Your task to perform on an android device: show emergency info Image 0: 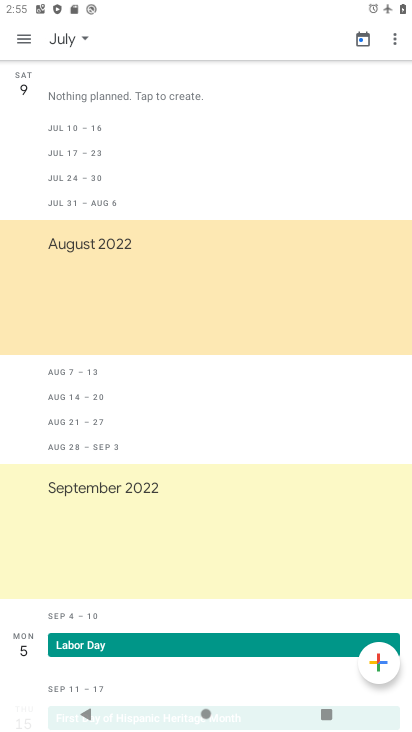
Step 0: press home button
Your task to perform on an android device: show emergency info Image 1: 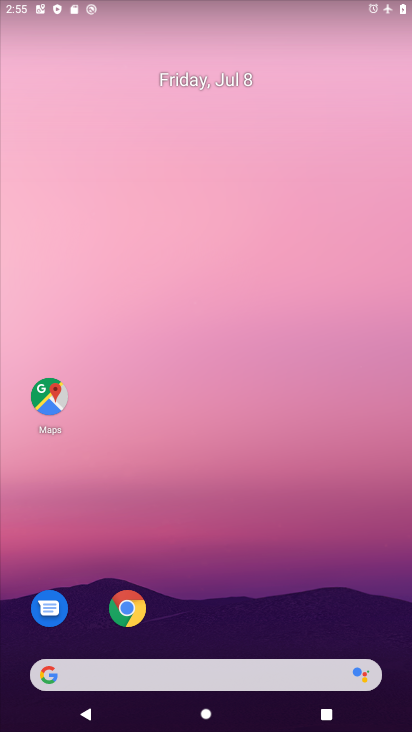
Step 1: drag from (215, 674) to (114, 0)
Your task to perform on an android device: show emergency info Image 2: 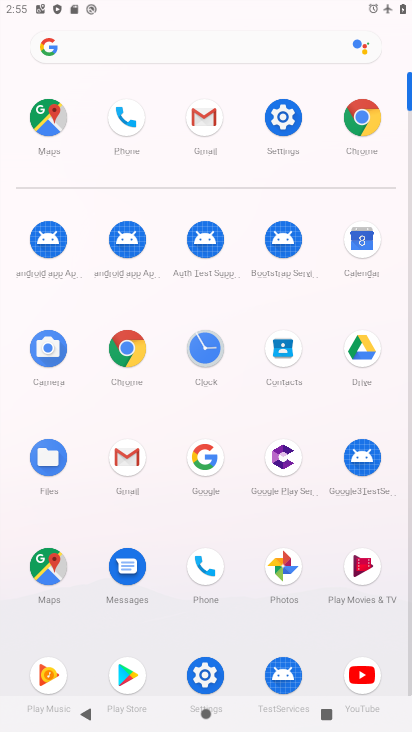
Step 2: click (292, 121)
Your task to perform on an android device: show emergency info Image 3: 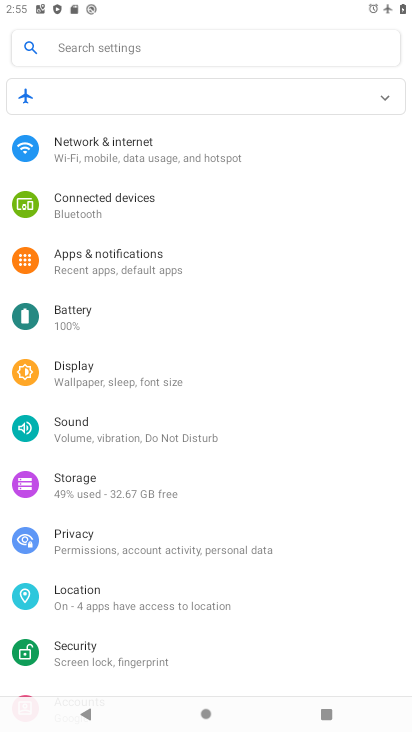
Step 3: drag from (133, 666) to (163, 92)
Your task to perform on an android device: show emergency info Image 4: 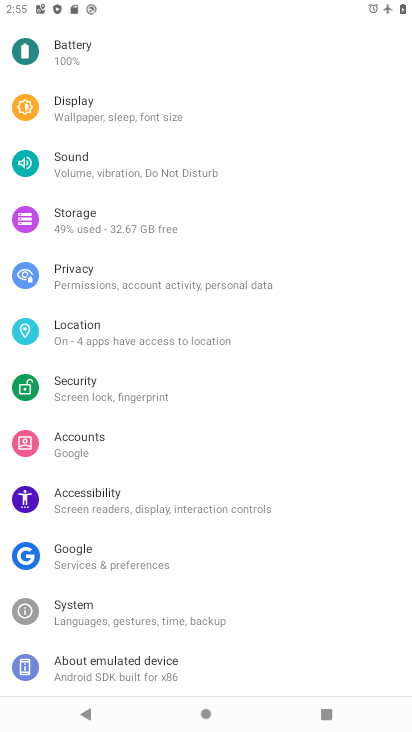
Step 4: click (121, 678)
Your task to perform on an android device: show emergency info Image 5: 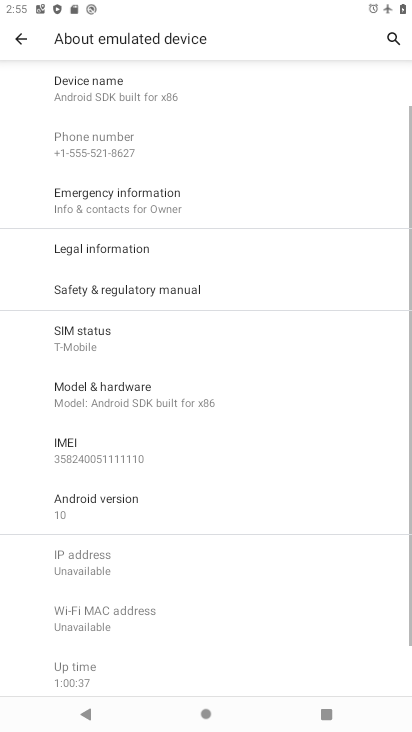
Step 5: click (132, 188)
Your task to perform on an android device: show emergency info Image 6: 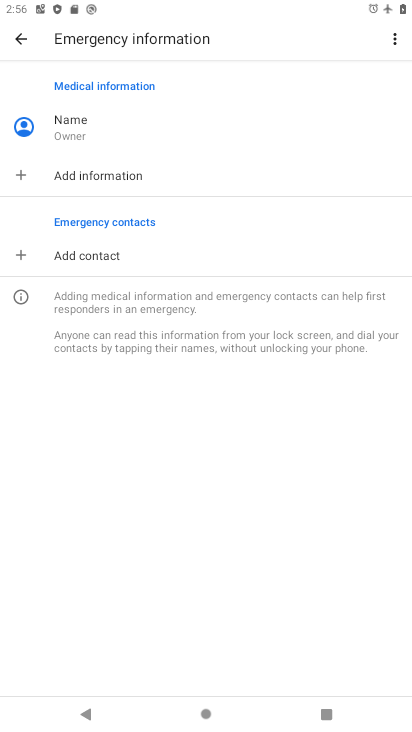
Step 6: task complete